Your task to perform on an android device: remove spam from my inbox in the gmail app Image 0: 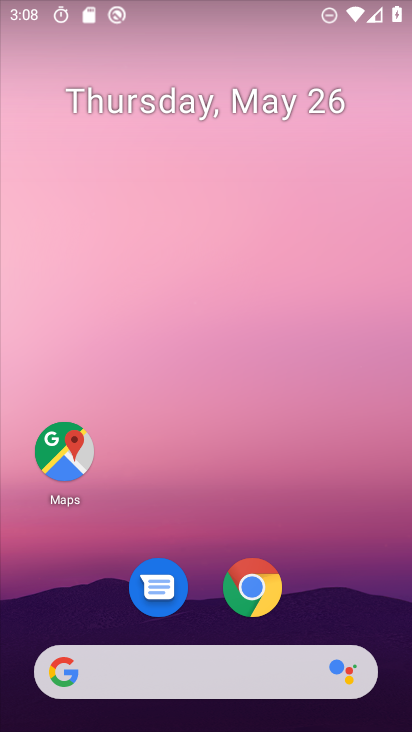
Step 0: drag from (322, 597) to (106, 27)
Your task to perform on an android device: remove spam from my inbox in the gmail app Image 1: 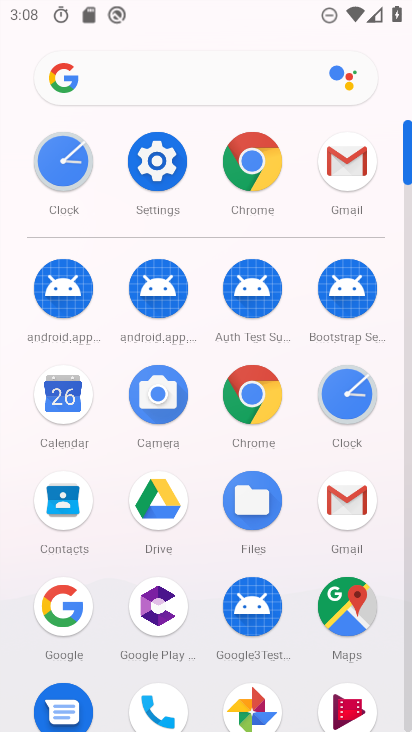
Step 1: click (355, 152)
Your task to perform on an android device: remove spam from my inbox in the gmail app Image 2: 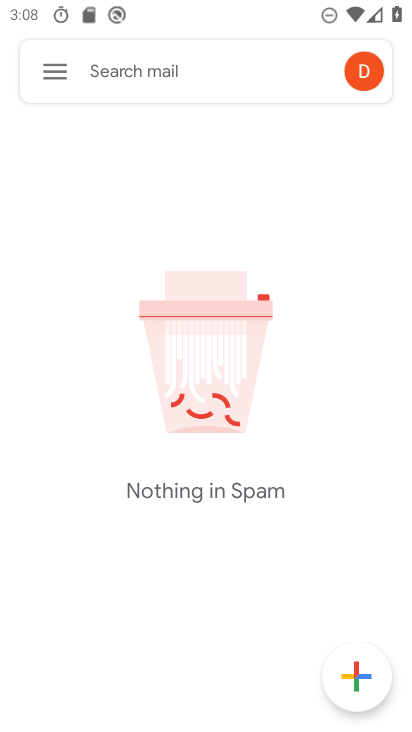
Step 2: click (50, 65)
Your task to perform on an android device: remove spam from my inbox in the gmail app Image 3: 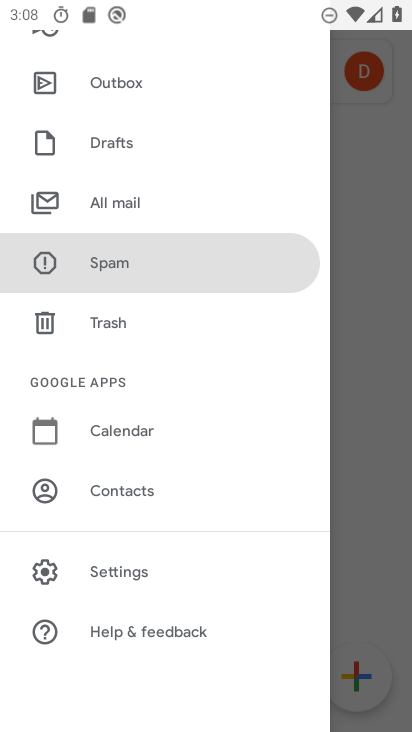
Step 3: drag from (78, 192) to (155, 587)
Your task to perform on an android device: remove spam from my inbox in the gmail app Image 4: 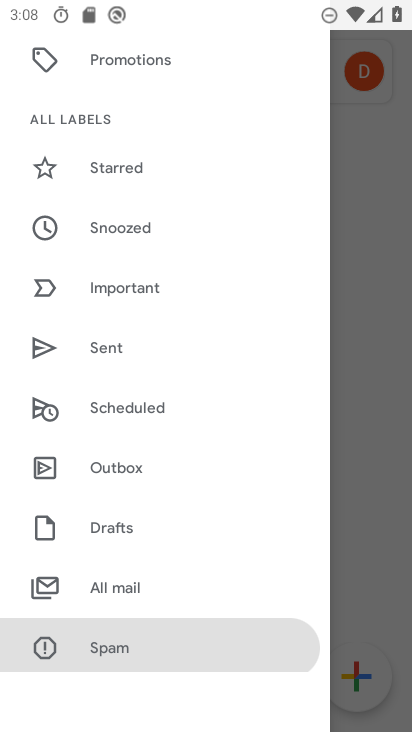
Step 4: drag from (108, 189) to (151, 495)
Your task to perform on an android device: remove spam from my inbox in the gmail app Image 5: 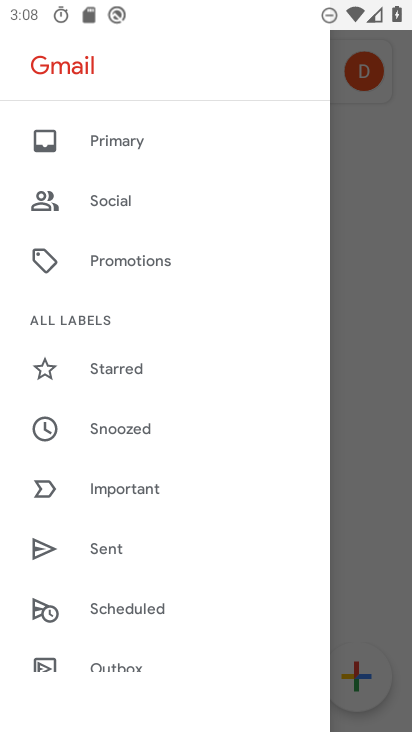
Step 5: click (112, 140)
Your task to perform on an android device: remove spam from my inbox in the gmail app Image 6: 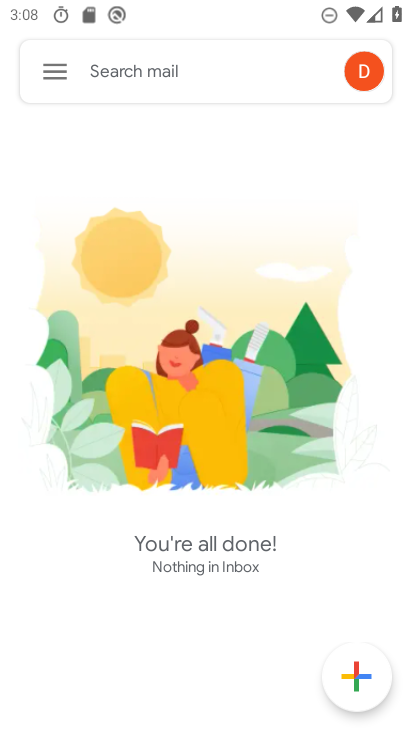
Step 6: task complete